Your task to perform on an android device: When is my next appointment? Image 0: 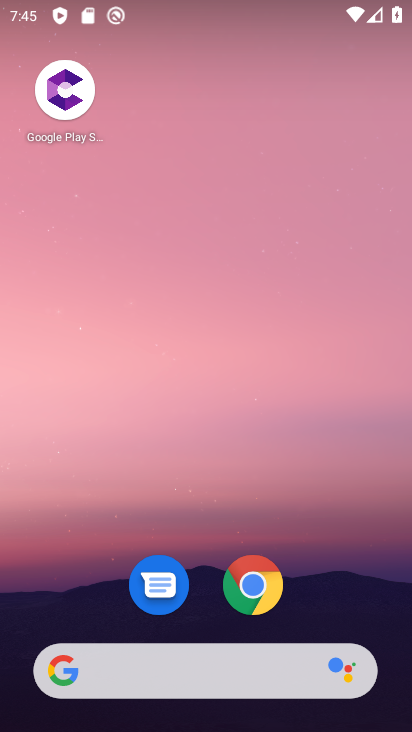
Step 0: drag from (240, 498) to (293, 9)
Your task to perform on an android device: When is my next appointment? Image 1: 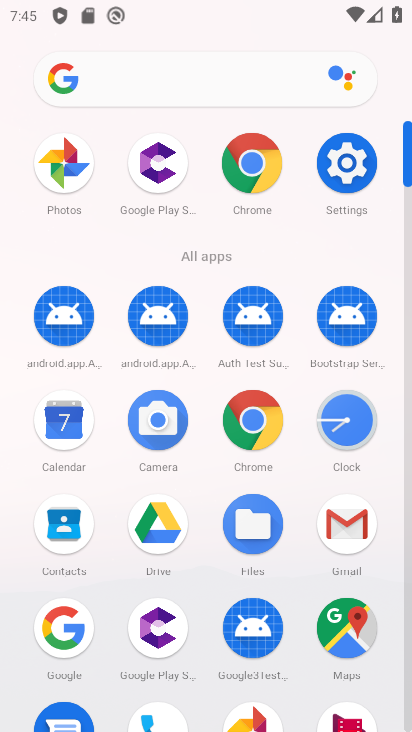
Step 1: click (72, 430)
Your task to perform on an android device: When is my next appointment? Image 2: 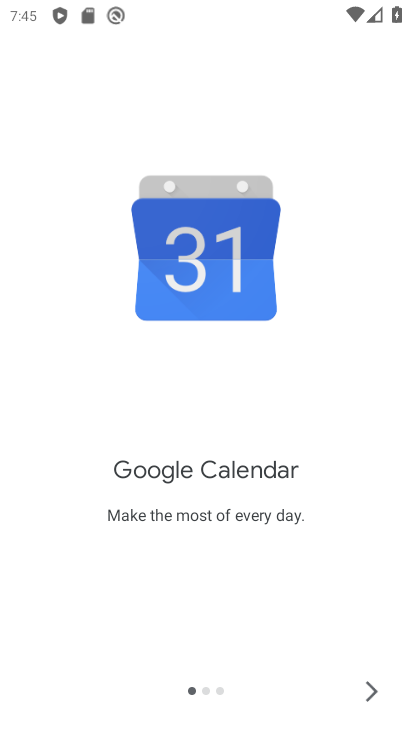
Step 2: click (368, 685)
Your task to perform on an android device: When is my next appointment? Image 3: 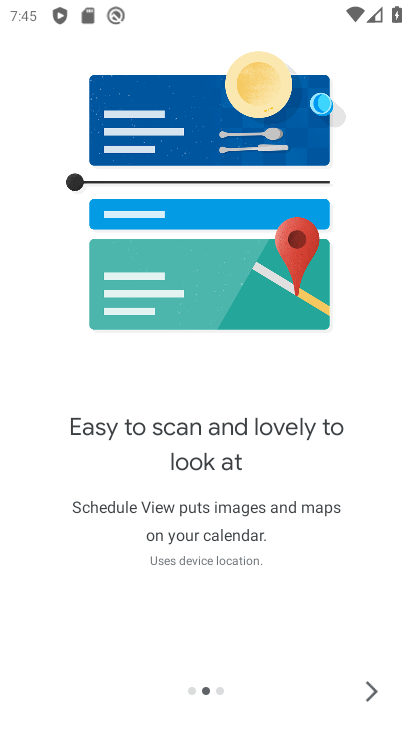
Step 3: click (368, 685)
Your task to perform on an android device: When is my next appointment? Image 4: 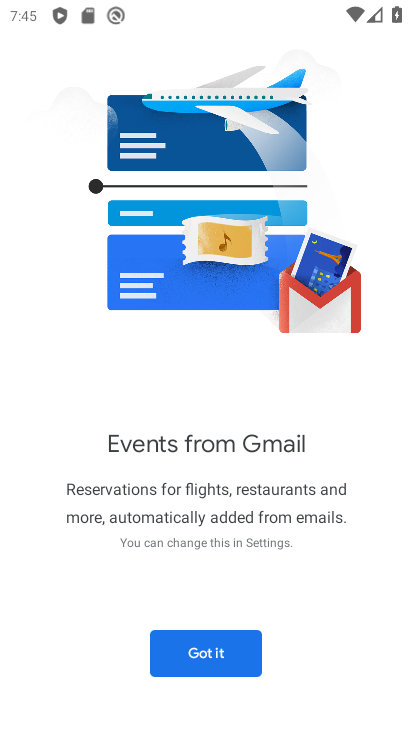
Step 4: click (247, 652)
Your task to perform on an android device: When is my next appointment? Image 5: 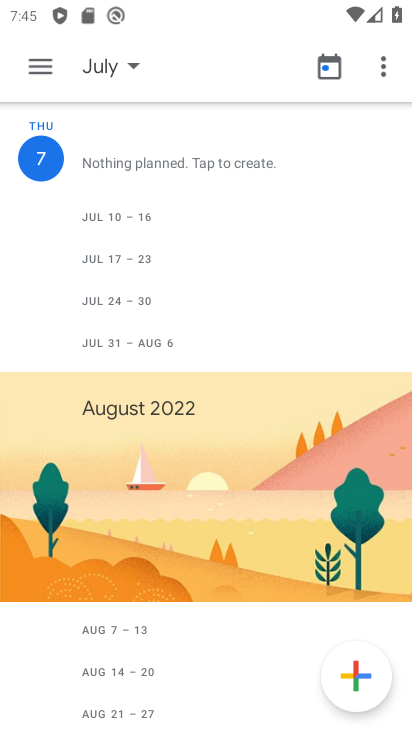
Step 5: task complete